Your task to perform on an android device: check the backup settings in the google photos Image 0: 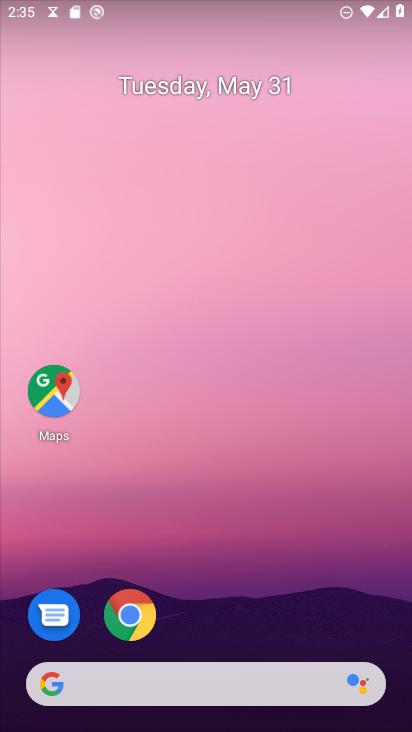
Step 0: drag from (210, 510) to (163, 96)
Your task to perform on an android device: check the backup settings in the google photos Image 1: 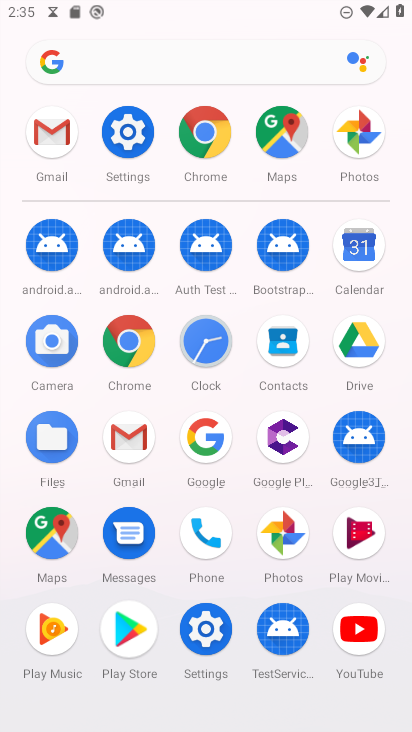
Step 1: drag from (233, 579) to (145, 164)
Your task to perform on an android device: check the backup settings in the google photos Image 2: 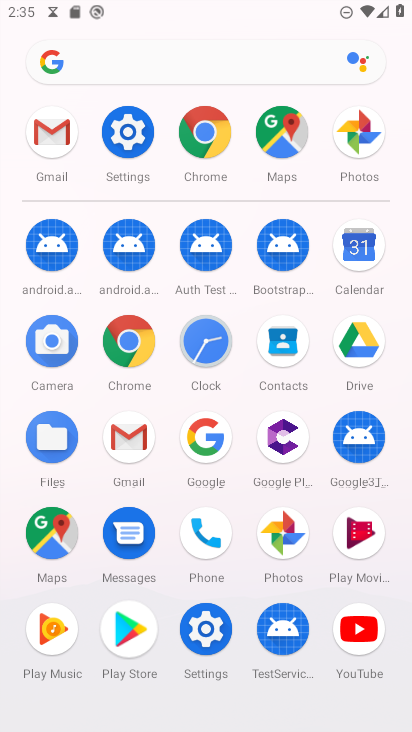
Step 2: click (277, 539)
Your task to perform on an android device: check the backup settings in the google photos Image 3: 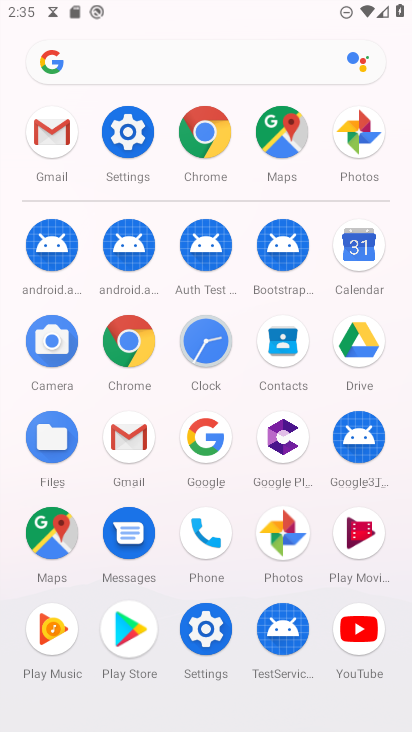
Step 3: click (282, 529)
Your task to perform on an android device: check the backup settings in the google photos Image 4: 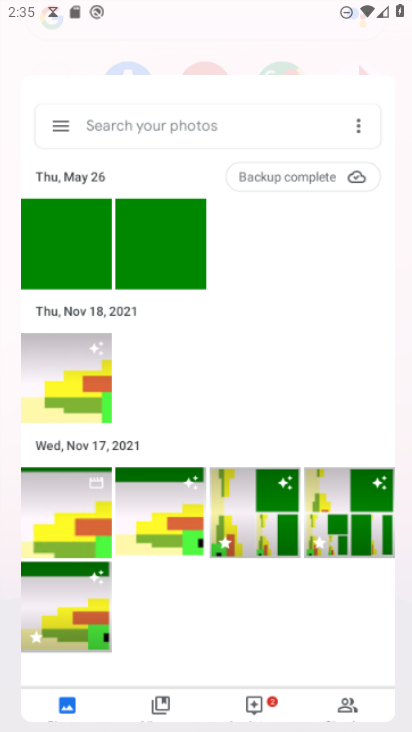
Step 4: click (284, 515)
Your task to perform on an android device: check the backup settings in the google photos Image 5: 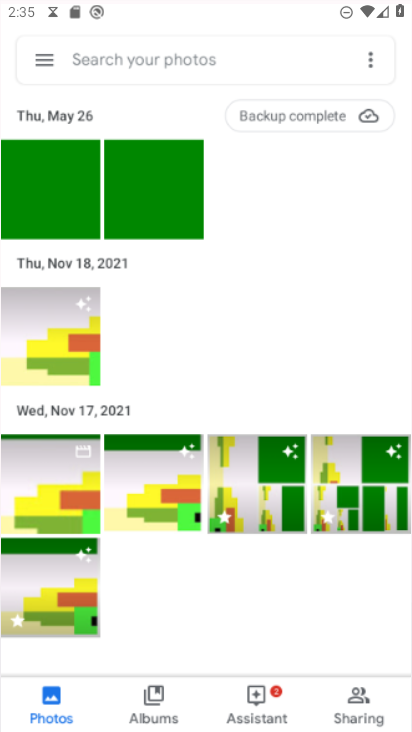
Step 5: click (284, 515)
Your task to perform on an android device: check the backup settings in the google photos Image 6: 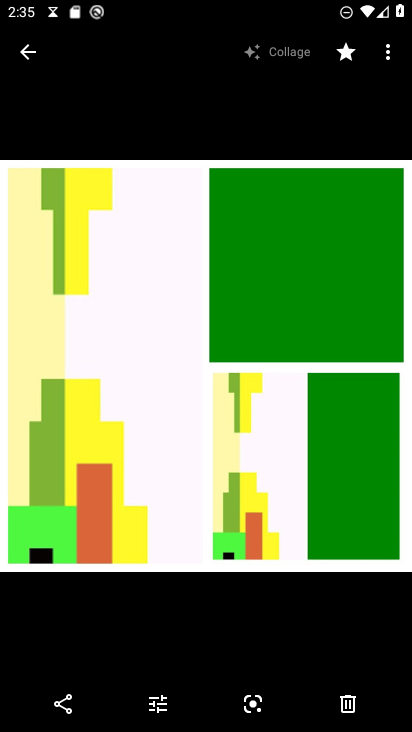
Step 6: click (20, 49)
Your task to perform on an android device: check the backup settings in the google photos Image 7: 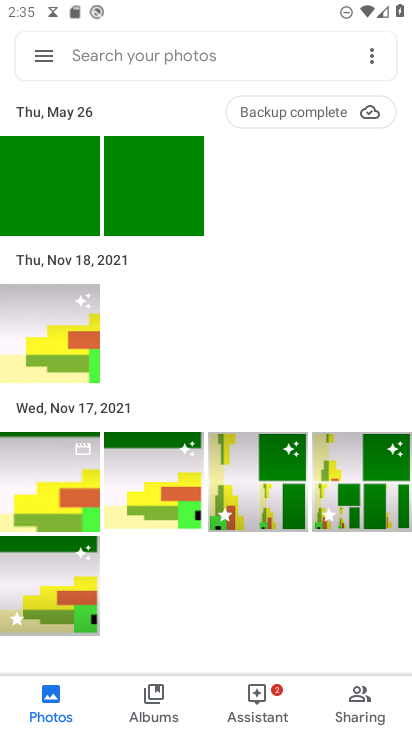
Step 7: click (42, 64)
Your task to perform on an android device: check the backup settings in the google photos Image 8: 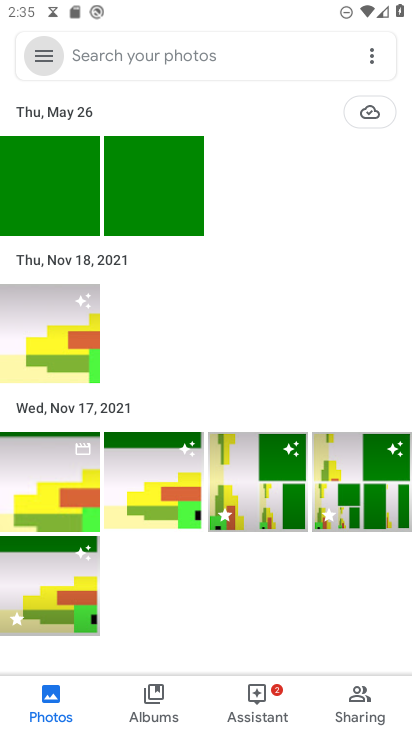
Step 8: click (42, 64)
Your task to perform on an android device: check the backup settings in the google photos Image 9: 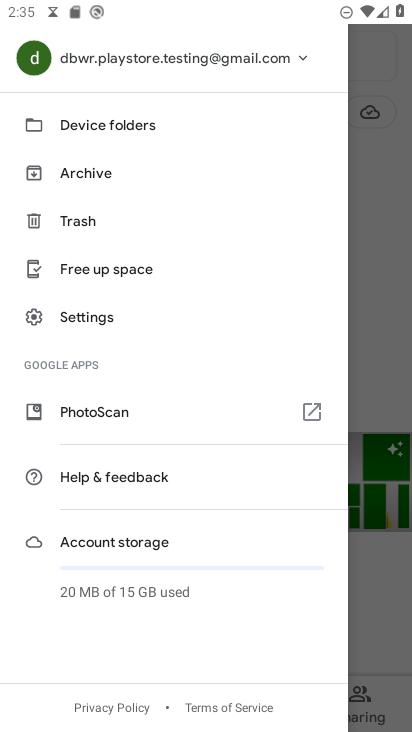
Step 9: click (79, 120)
Your task to perform on an android device: check the backup settings in the google photos Image 10: 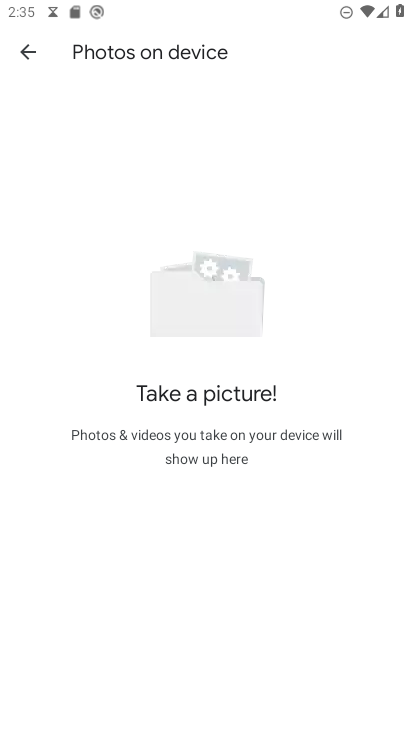
Step 10: click (33, 50)
Your task to perform on an android device: check the backup settings in the google photos Image 11: 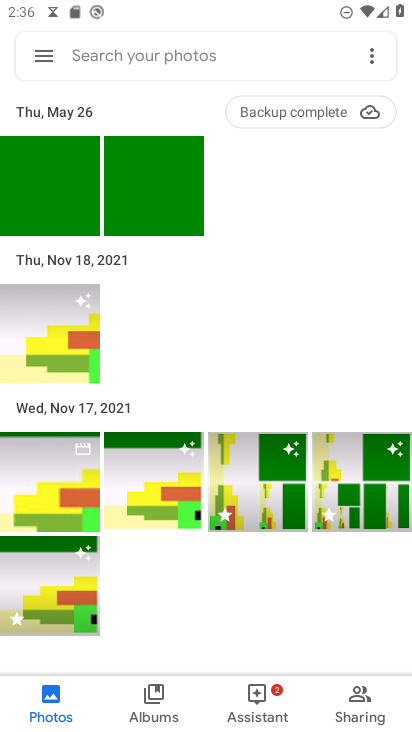
Step 11: click (49, 65)
Your task to perform on an android device: check the backup settings in the google photos Image 12: 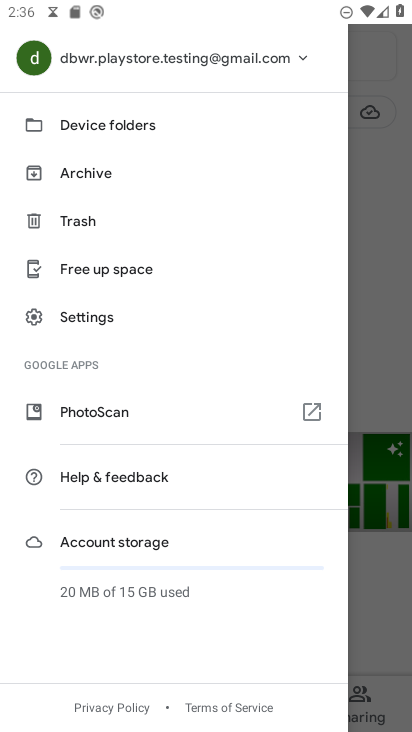
Step 12: click (86, 312)
Your task to perform on an android device: check the backup settings in the google photos Image 13: 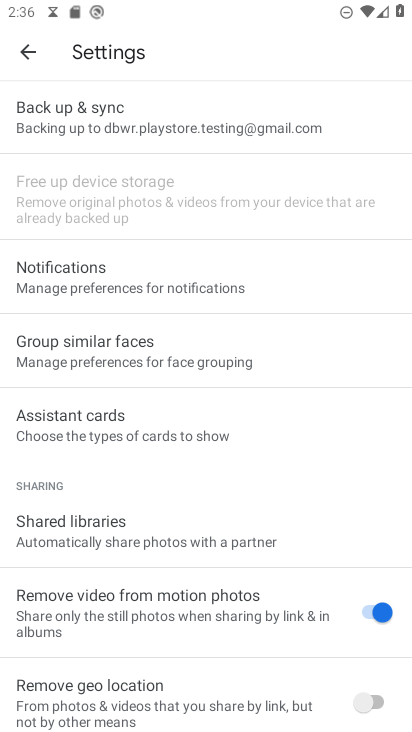
Step 13: click (91, 112)
Your task to perform on an android device: check the backup settings in the google photos Image 14: 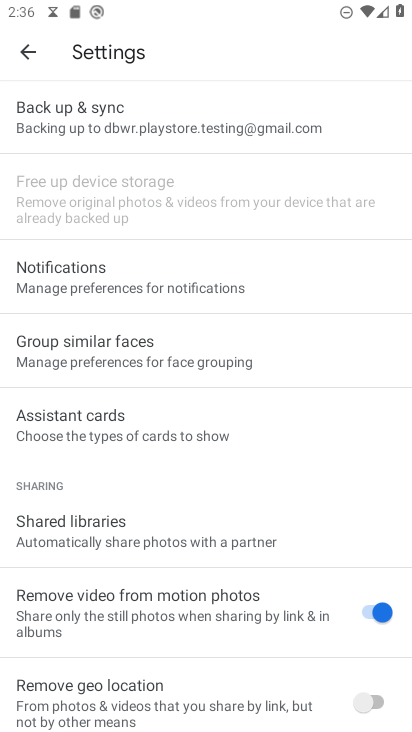
Step 14: click (91, 114)
Your task to perform on an android device: check the backup settings in the google photos Image 15: 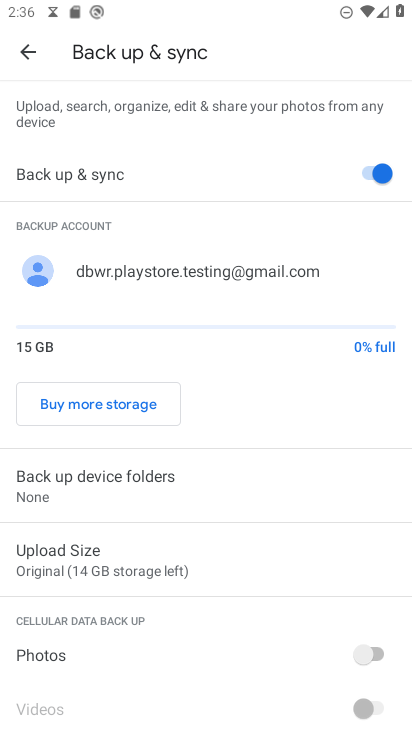
Step 15: click (54, 563)
Your task to perform on an android device: check the backup settings in the google photos Image 16: 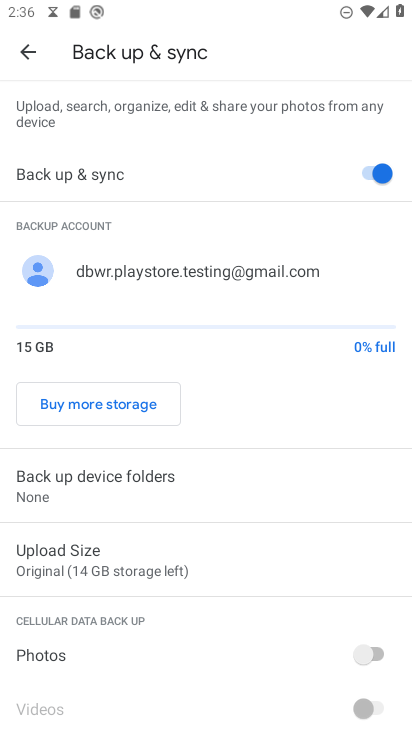
Step 16: click (55, 563)
Your task to perform on an android device: check the backup settings in the google photos Image 17: 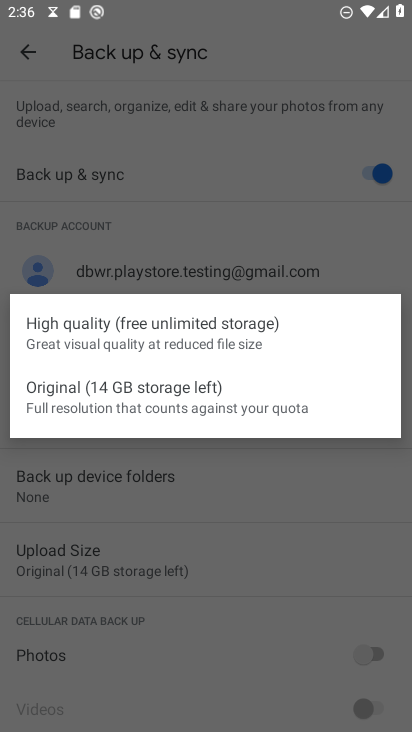
Step 17: click (56, 563)
Your task to perform on an android device: check the backup settings in the google photos Image 18: 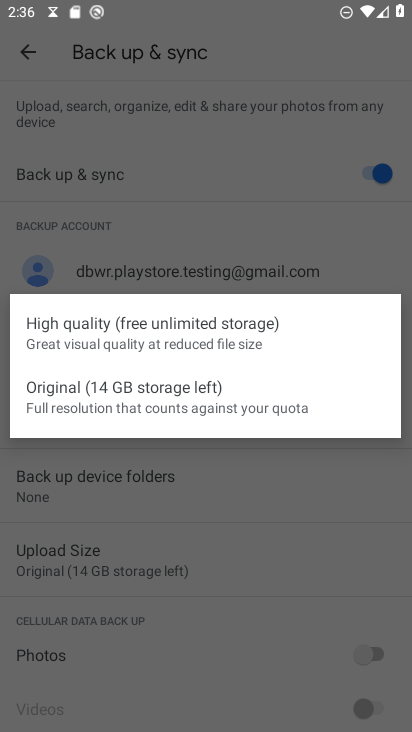
Step 18: click (96, 385)
Your task to perform on an android device: check the backup settings in the google photos Image 19: 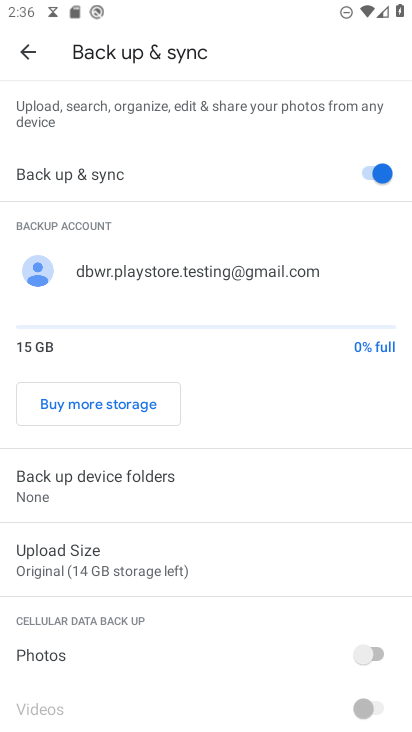
Step 19: click (39, 570)
Your task to perform on an android device: check the backup settings in the google photos Image 20: 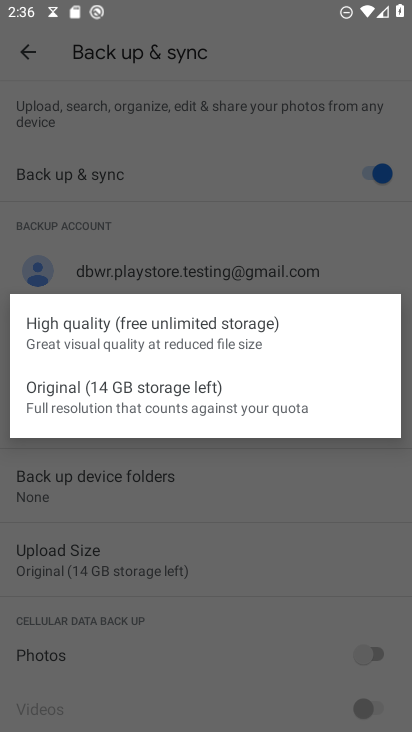
Step 20: click (66, 324)
Your task to perform on an android device: check the backup settings in the google photos Image 21: 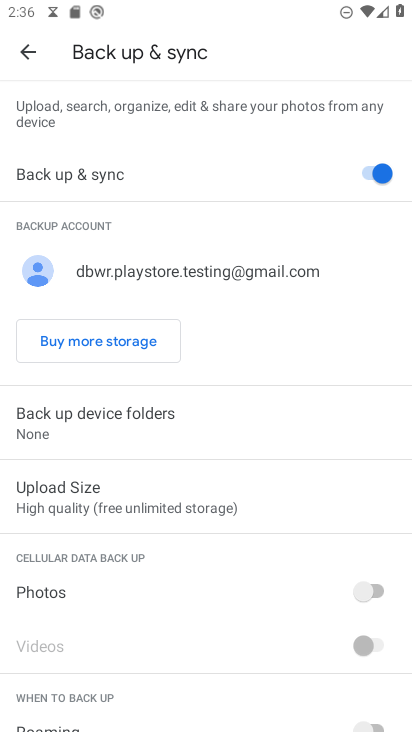
Step 21: task complete